Your task to perform on an android device: Search for razer blackwidow on ebay.com, select the first entry, and add it to the cart. Image 0: 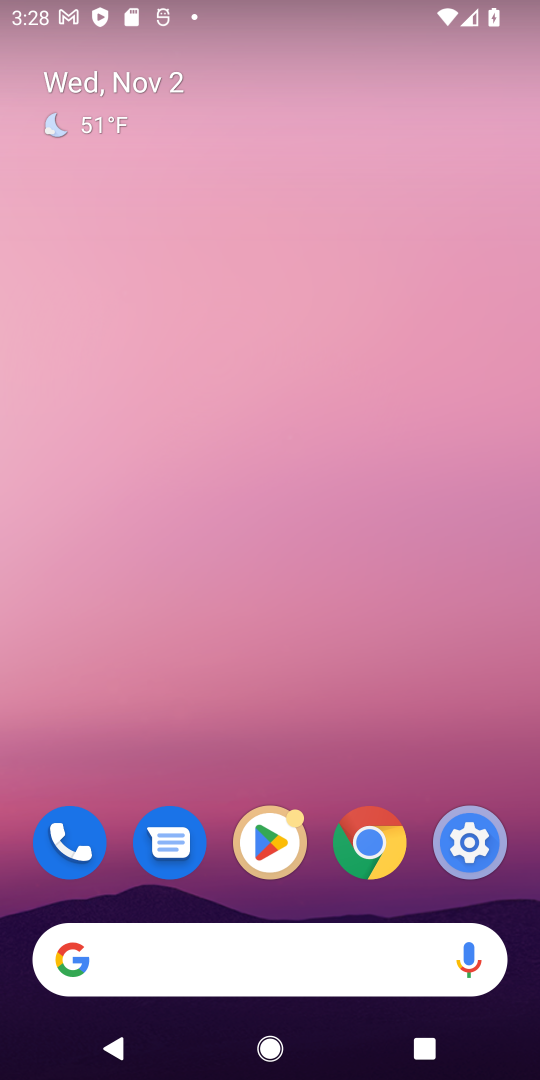
Step 0: click (222, 968)
Your task to perform on an android device: Search for razer blackwidow on ebay.com, select the first entry, and add it to the cart. Image 1: 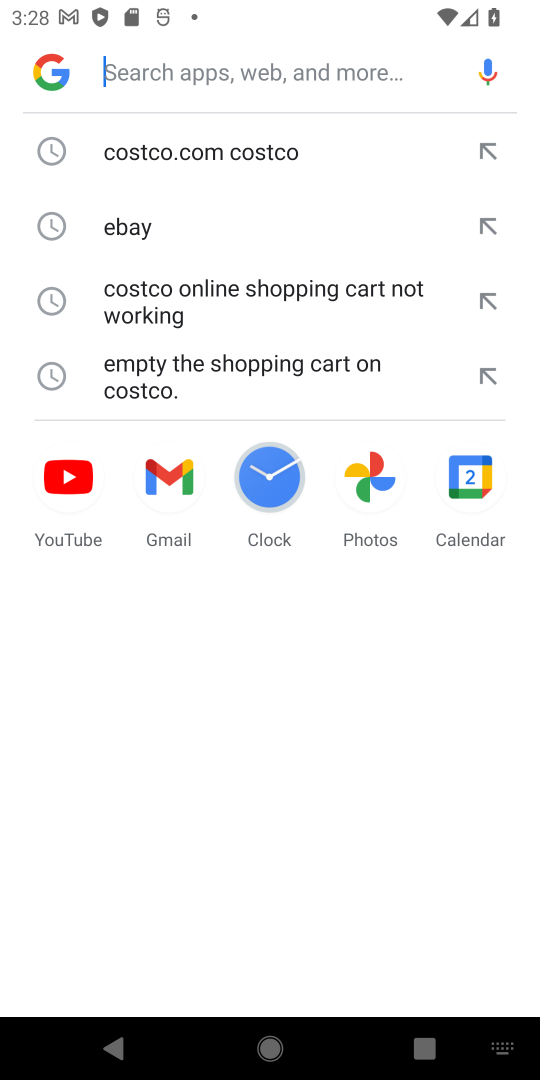
Step 1: click (138, 215)
Your task to perform on an android device: Search for razer blackwidow on ebay.com, select the first entry, and add it to the cart. Image 2: 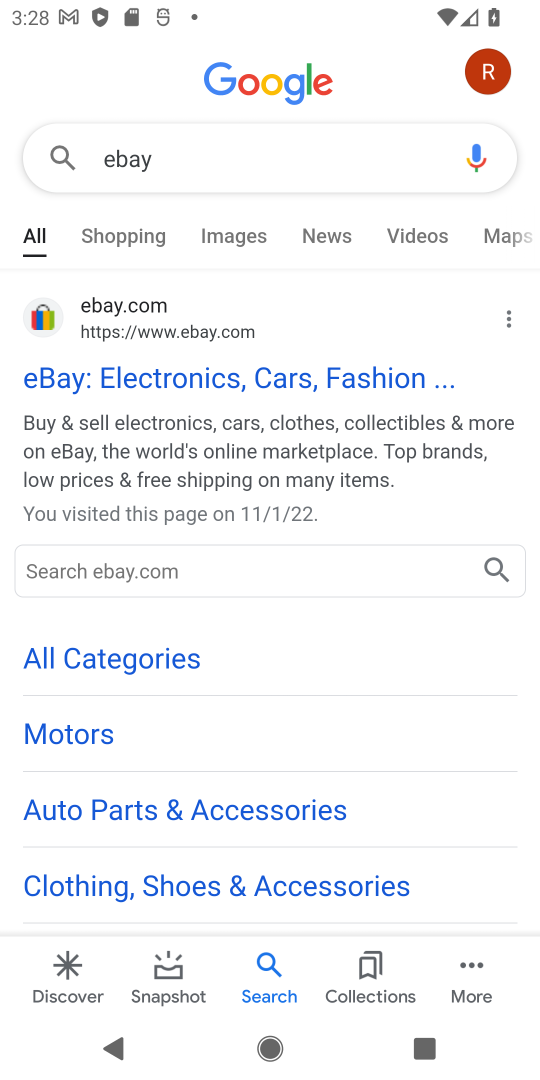
Step 2: click (141, 381)
Your task to perform on an android device: Search for razer blackwidow on ebay.com, select the first entry, and add it to the cart. Image 3: 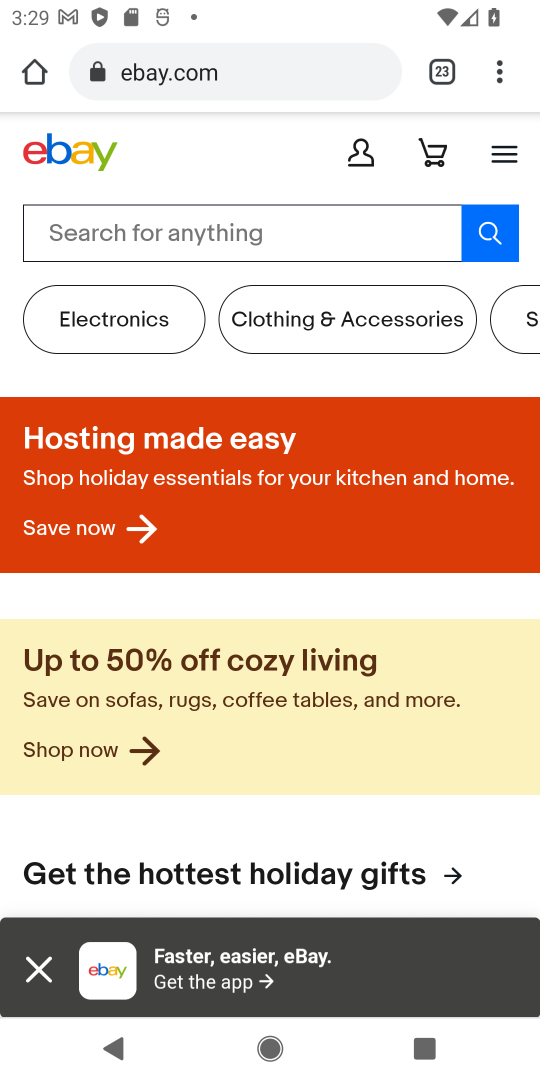
Step 3: click (194, 232)
Your task to perform on an android device: Search for razer blackwidow on ebay.com, select the first entry, and add it to the cart. Image 4: 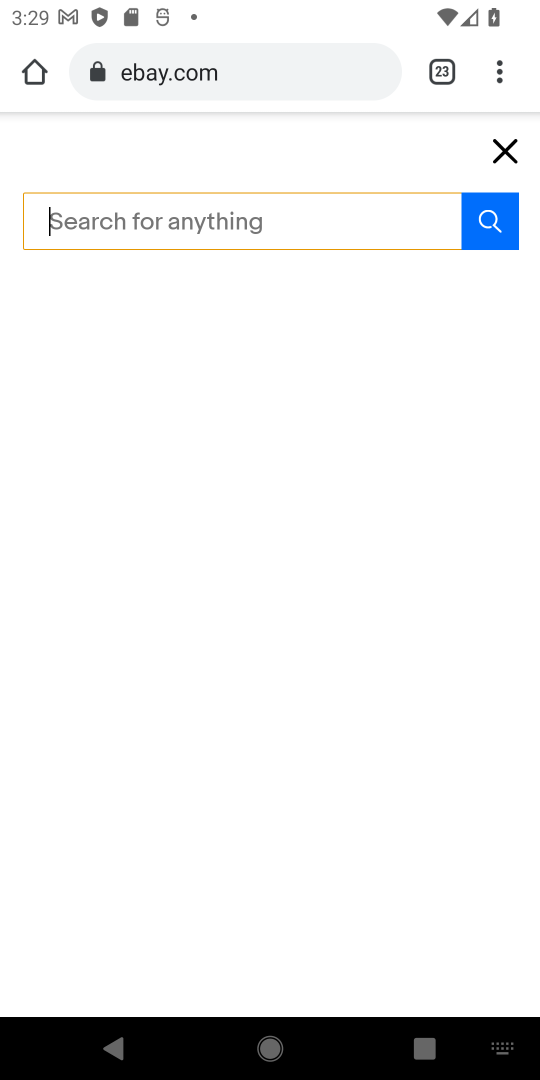
Step 4: type "razer blackwidow"
Your task to perform on an android device: Search for razer blackwidow on ebay.com, select the first entry, and add it to the cart. Image 5: 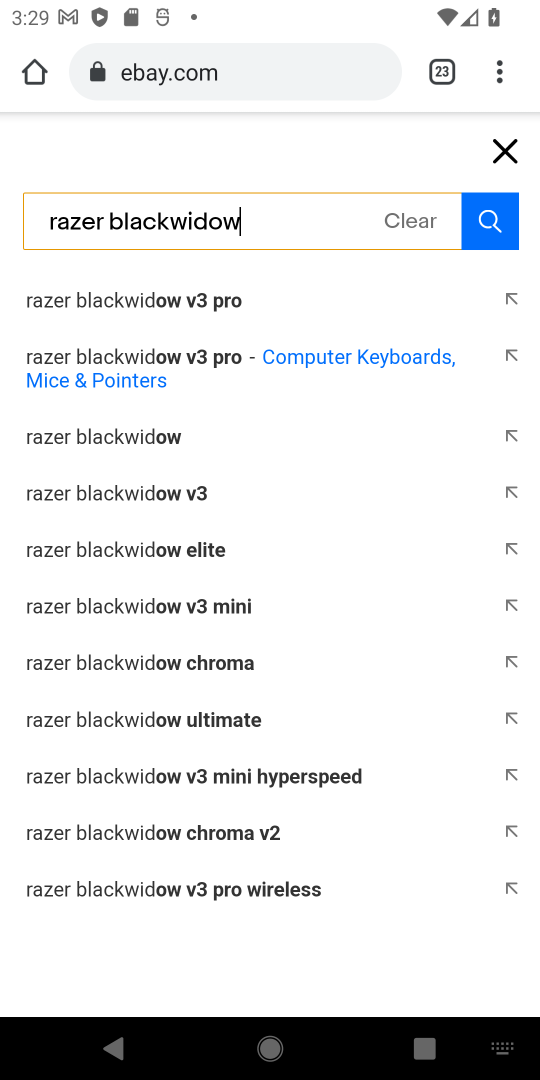
Step 5: click (151, 432)
Your task to perform on an android device: Search for razer blackwidow on ebay.com, select the first entry, and add it to the cart. Image 6: 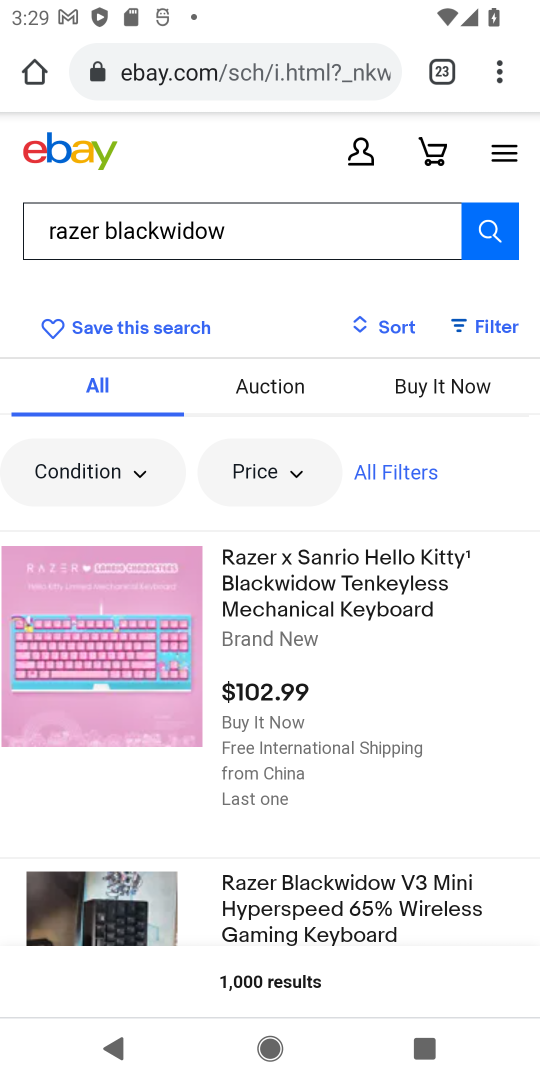
Step 6: click (358, 588)
Your task to perform on an android device: Search for razer blackwidow on ebay.com, select the first entry, and add it to the cart. Image 7: 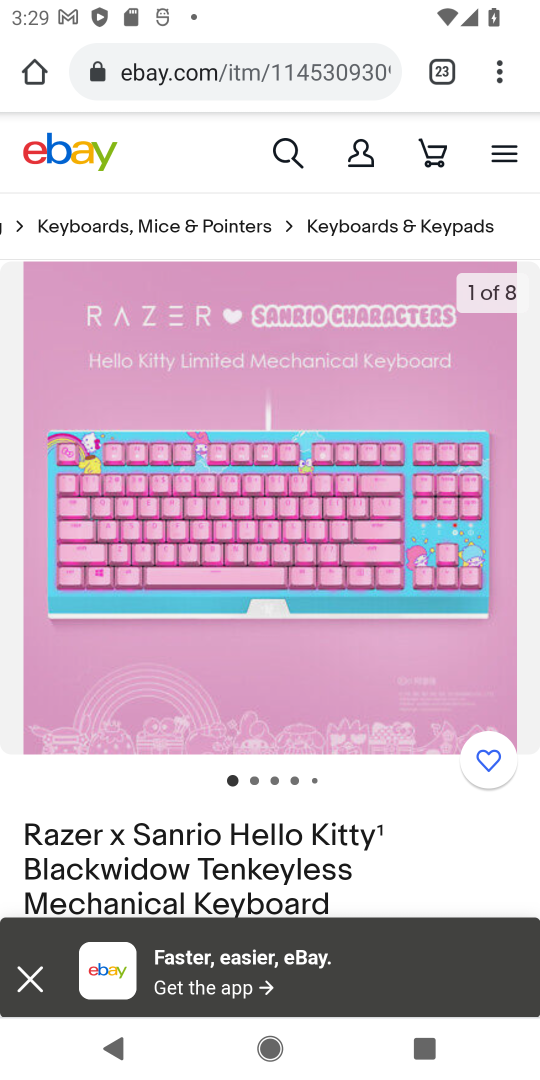
Step 7: drag from (440, 832) to (368, 386)
Your task to perform on an android device: Search for razer blackwidow on ebay.com, select the first entry, and add it to the cart. Image 8: 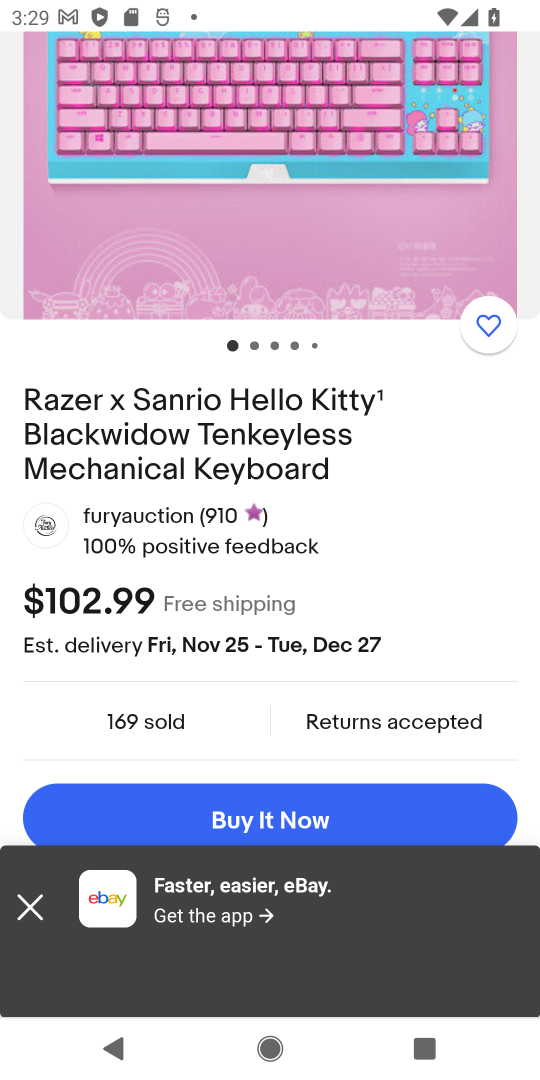
Step 8: drag from (418, 577) to (374, 287)
Your task to perform on an android device: Search for razer blackwidow on ebay.com, select the first entry, and add it to the cart. Image 9: 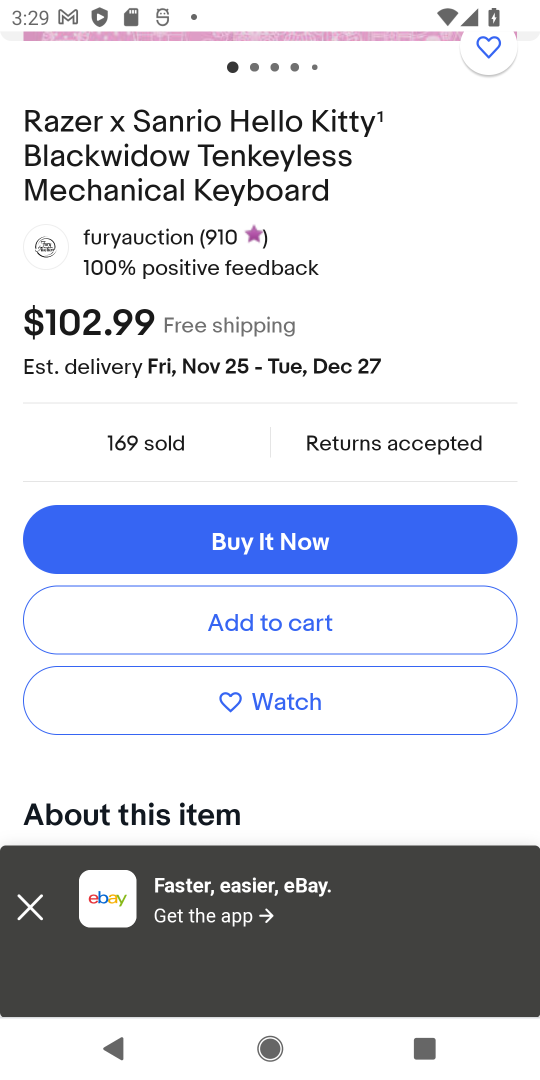
Step 9: click (243, 617)
Your task to perform on an android device: Search for razer blackwidow on ebay.com, select the first entry, and add it to the cart. Image 10: 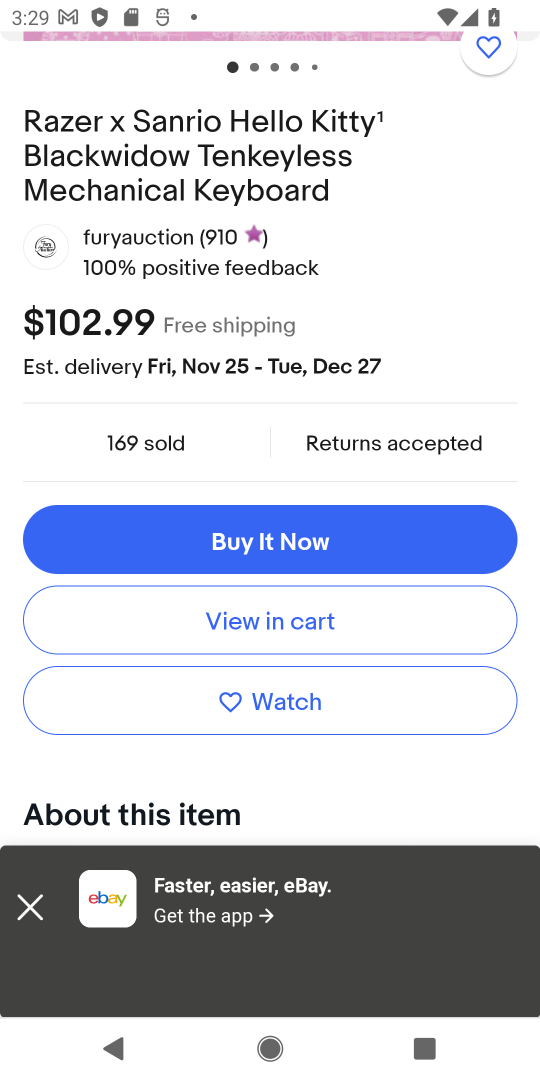
Step 10: drag from (417, 269) to (438, 581)
Your task to perform on an android device: Search for razer blackwidow on ebay.com, select the first entry, and add it to the cart. Image 11: 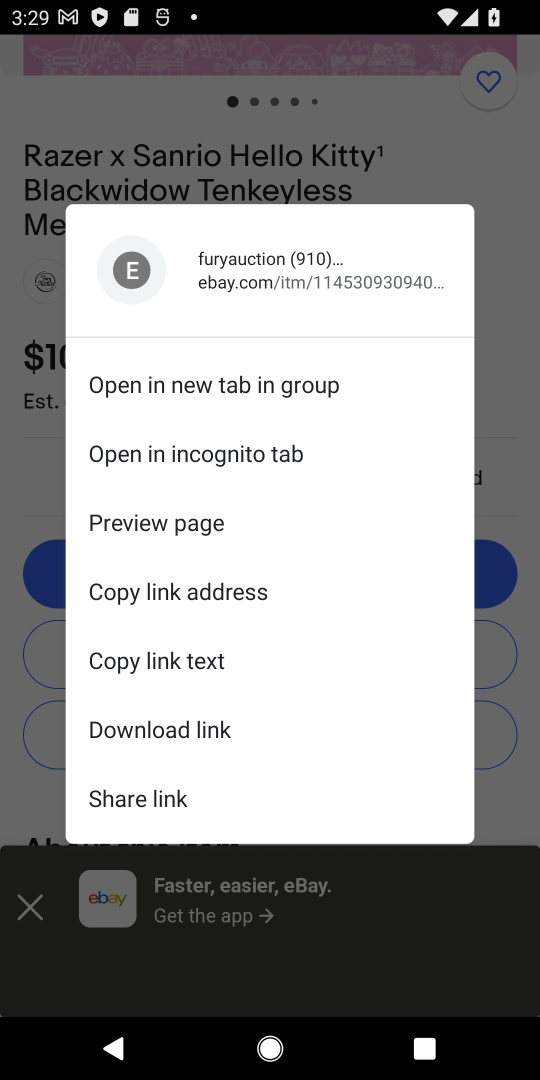
Step 11: click (511, 402)
Your task to perform on an android device: Search for razer blackwidow on ebay.com, select the first entry, and add it to the cart. Image 12: 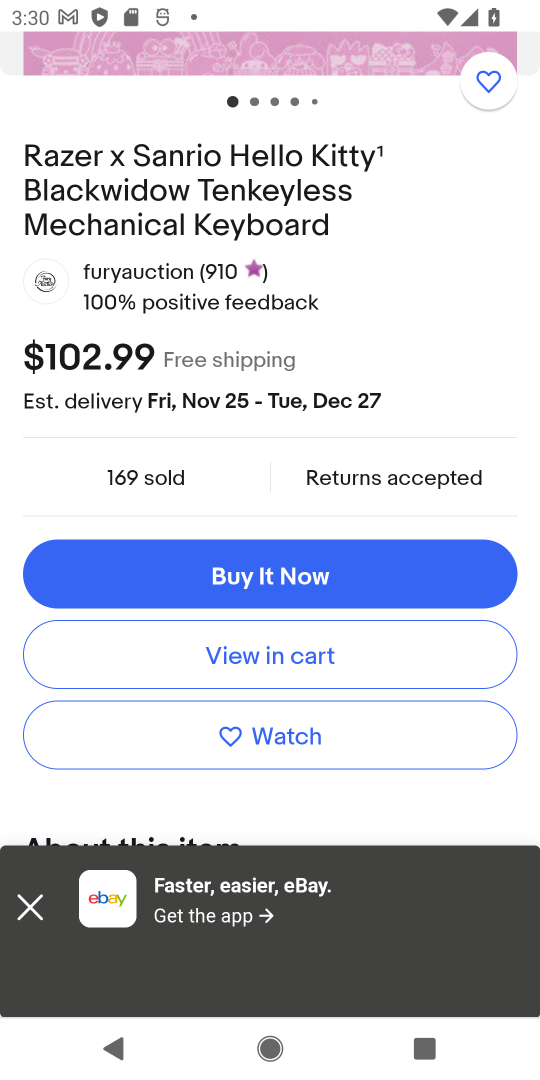
Step 12: click (28, 904)
Your task to perform on an android device: Search for razer blackwidow on ebay.com, select the first entry, and add it to the cart. Image 13: 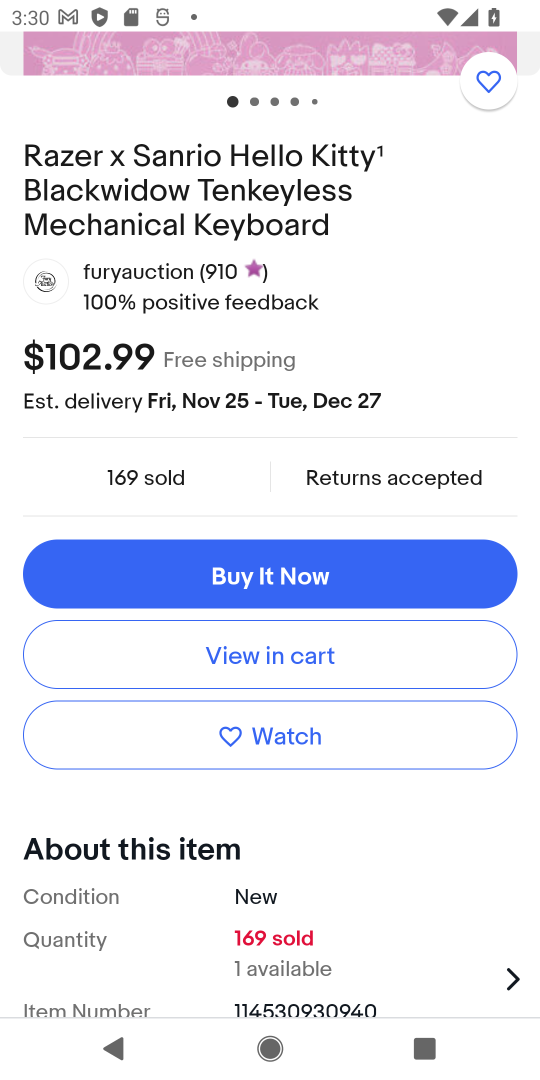
Step 13: task complete